Your task to perform on an android device: Show me popular videos on Youtube Image 0: 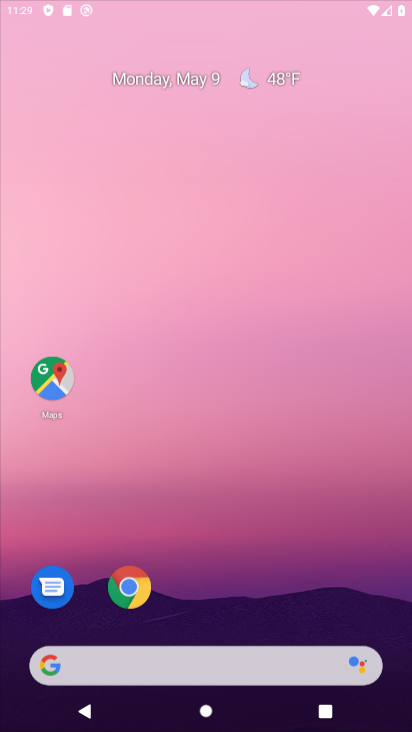
Step 0: drag from (257, 589) to (325, 167)
Your task to perform on an android device: Show me popular videos on Youtube Image 1: 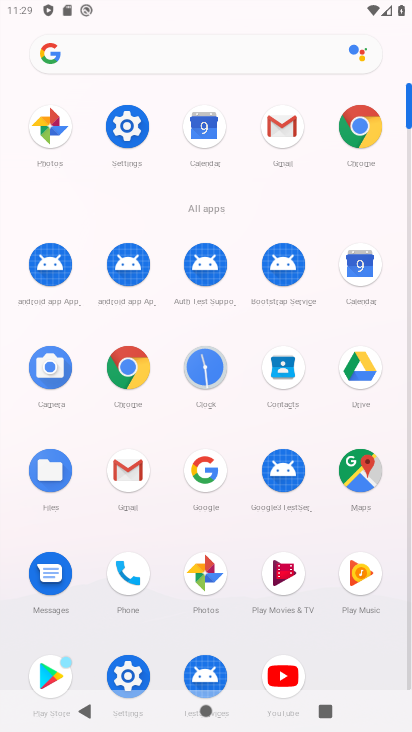
Step 1: click (286, 676)
Your task to perform on an android device: Show me popular videos on Youtube Image 2: 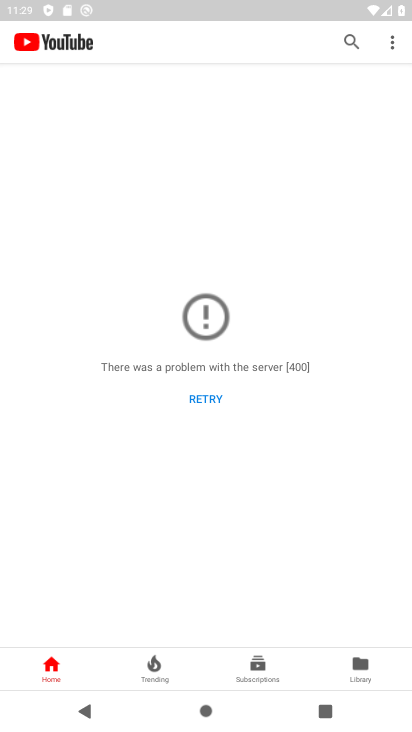
Step 2: click (369, 32)
Your task to perform on an android device: Show me popular videos on Youtube Image 3: 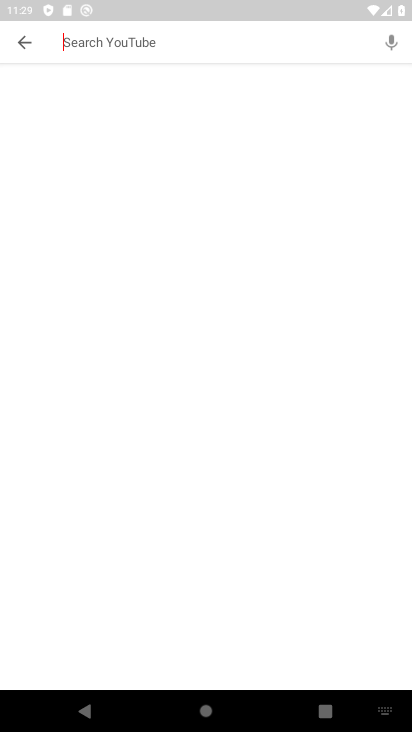
Step 3: type "india "
Your task to perform on an android device: Show me popular videos on Youtube Image 4: 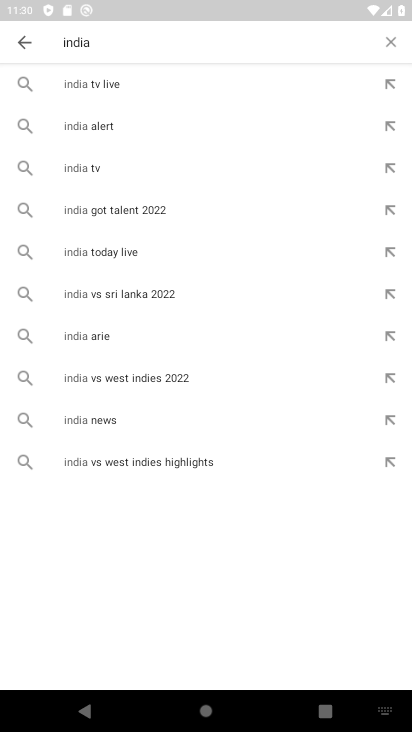
Step 4: click (138, 124)
Your task to perform on an android device: Show me popular videos on Youtube Image 5: 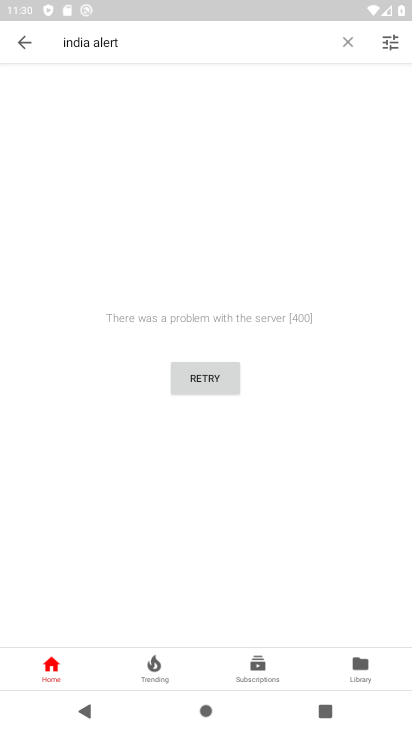
Step 5: task complete